Your task to perform on an android device: turn smart compose on in the gmail app Image 0: 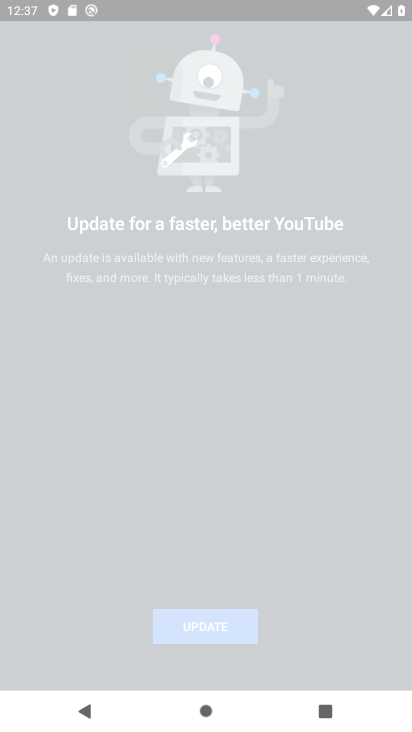
Step 0: drag from (323, 568) to (323, 211)
Your task to perform on an android device: turn smart compose on in the gmail app Image 1: 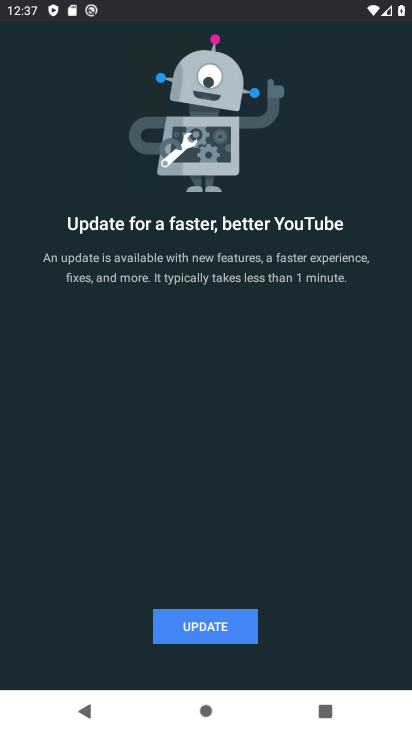
Step 1: press home button
Your task to perform on an android device: turn smart compose on in the gmail app Image 2: 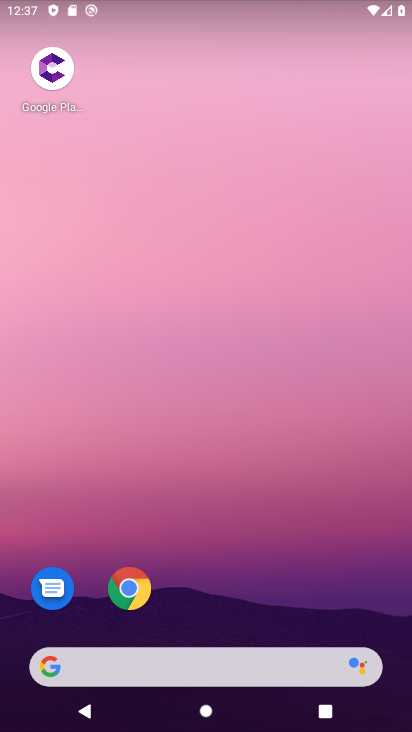
Step 2: drag from (355, 596) to (342, 200)
Your task to perform on an android device: turn smart compose on in the gmail app Image 3: 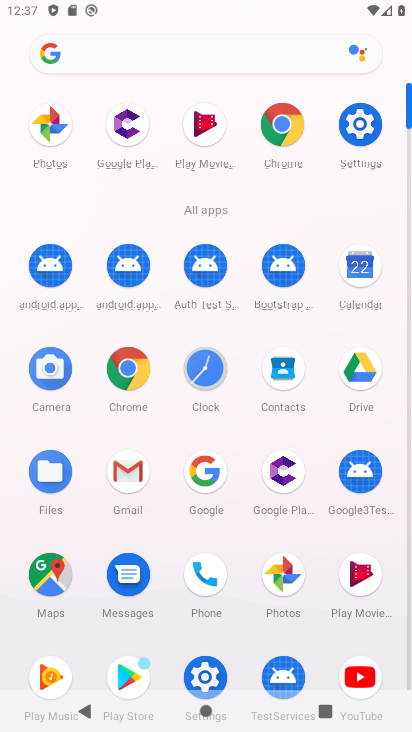
Step 3: click (122, 479)
Your task to perform on an android device: turn smart compose on in the gmail app Image 4: 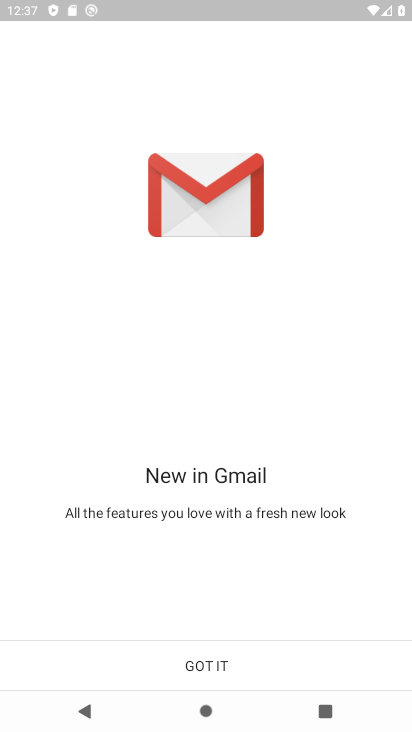
Step 4: click (189, 667)
Your task to perform on an android device: turn smart compose on in the gmail app Image 5: 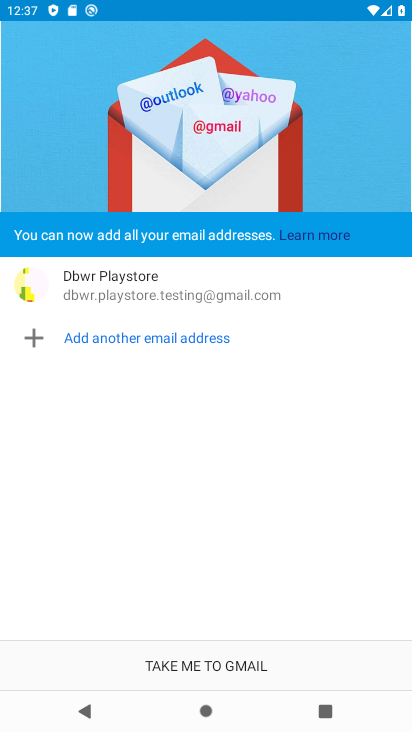
Step 5: click (189, 665)
Your task to perform on an android device: turn smart compose on in the gmail app Image 6: 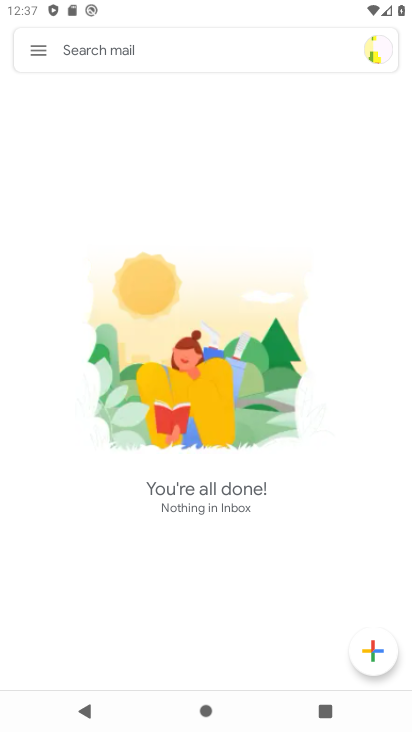
Step 6: click (44, 46)
Your task to perform on an android device: turn smart compose on in the gmail app Image 7: 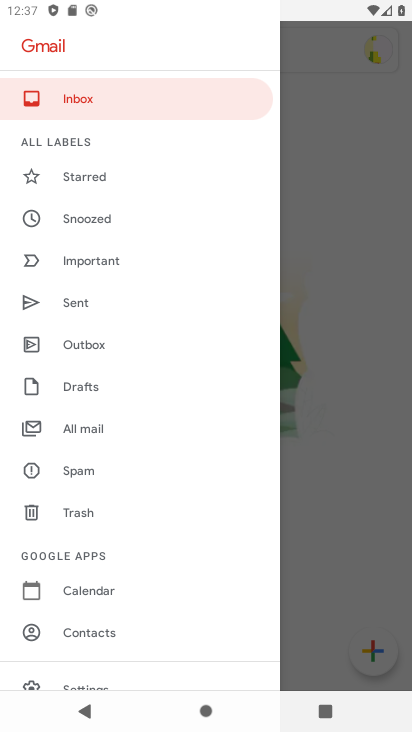
Step 7: drag from (148, 602) to (152, 301)
Your task to perform on an android device: turn smart compose on in the gmail app Image 8: 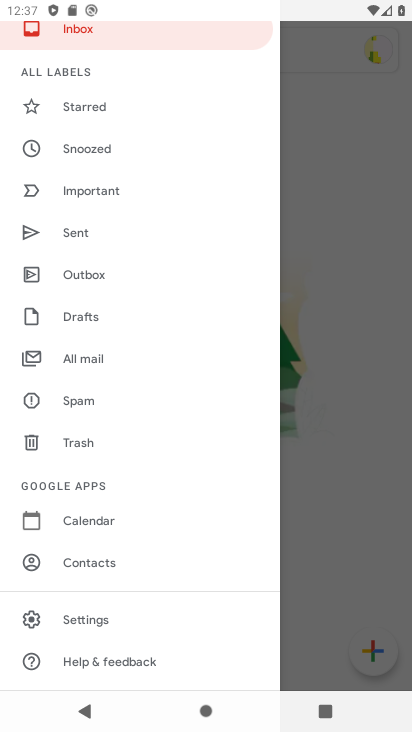
Step 8: click (60, 623)
Your task to perform on an android device: turn smart compose on in the gmail app Image 9: 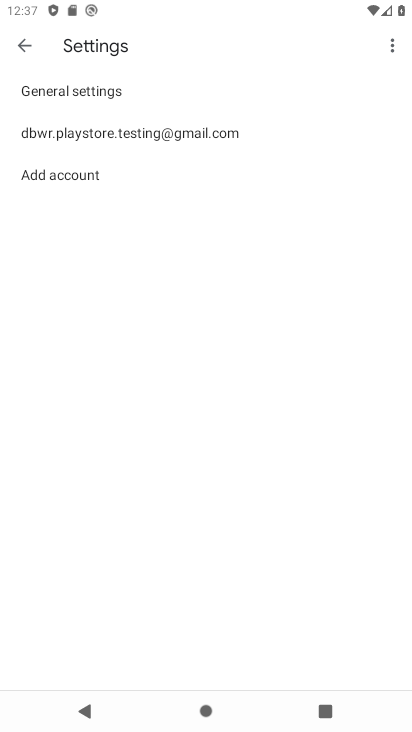
Step 9: click (187, 130)
Your task to perform on an android device: turn smart compose on in the gmail app Image 10: 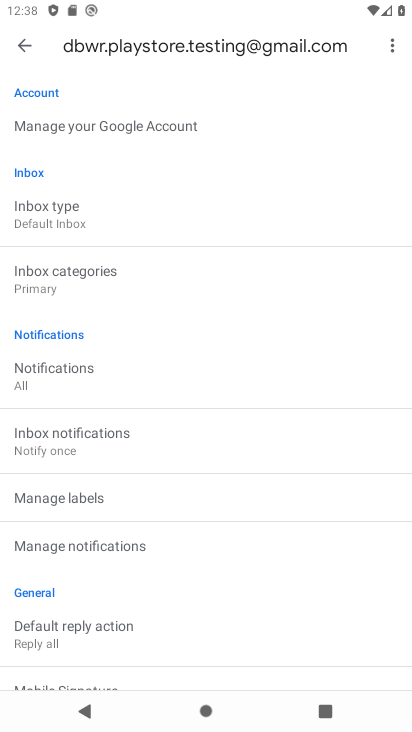
Step 10: task complete